Your task to perform on an android device: Open maps Image 0: 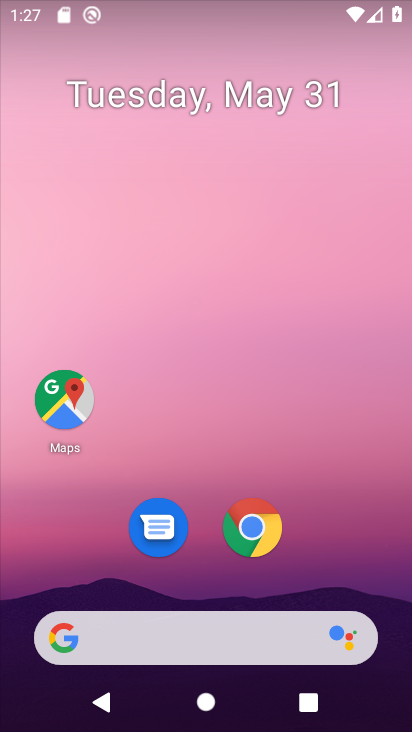
Step 0: click (75, 417)
Your task to perform on an android device: Open maps Image 1: 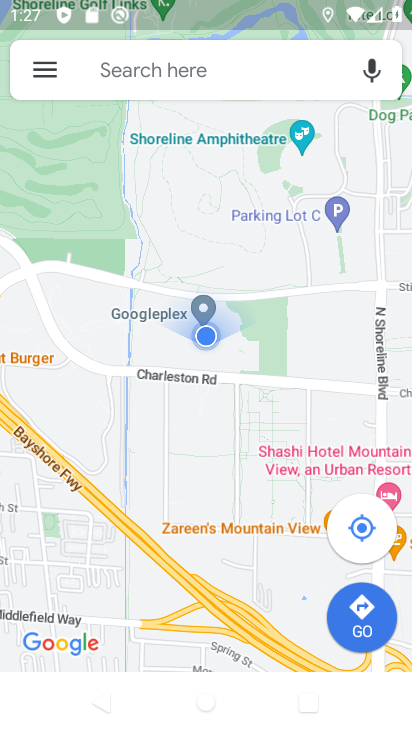
Step 1: task complete